Your task to perform on an android device: Search for sushi restaurants on Maps Image 0: 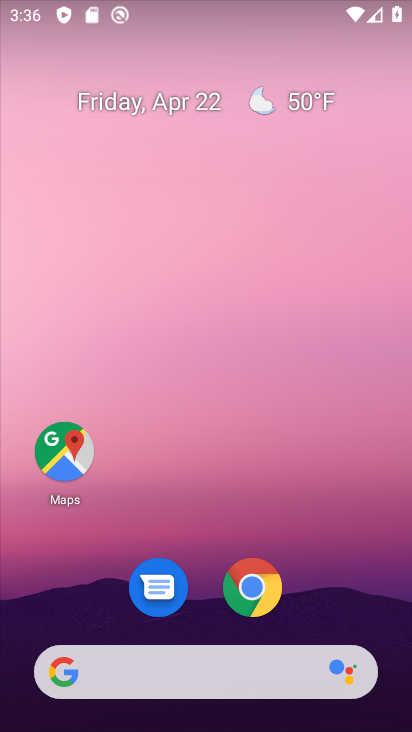
Step 0: click (62, 440)
Your task to perform on an android device: Search for sushi restaurants on Maps Image 1: 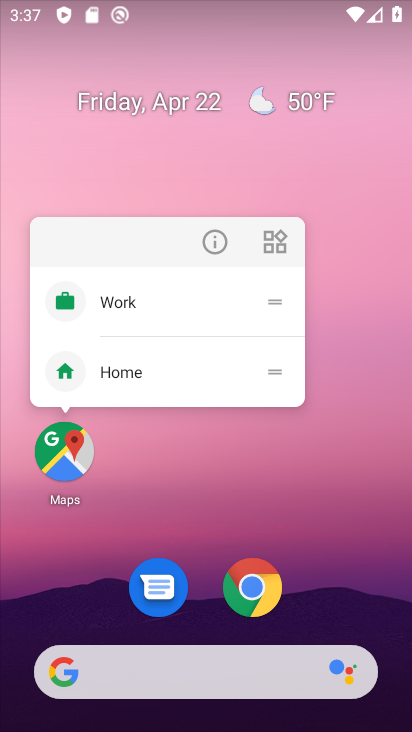
Step 1: click (66, 459)
Your task to perform on an android device: Search for sushi restaurants on Maps Image 2: 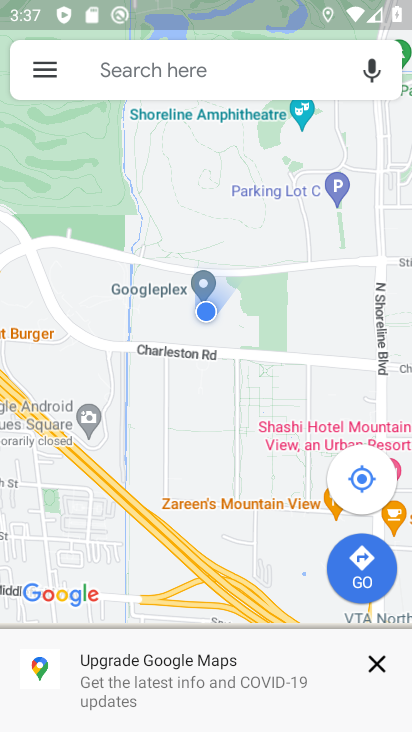
Step 2: click (145, 73)
Your task to perform on an android device: Search for sushi restaurants on Maps Image 3: 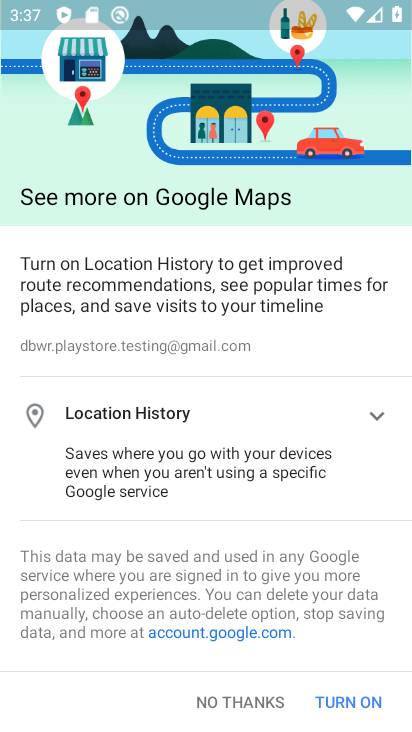
Step 3: click (210, 700)
Your task to perform on an android device: Search for sushi restaurants on Maps Image 4: 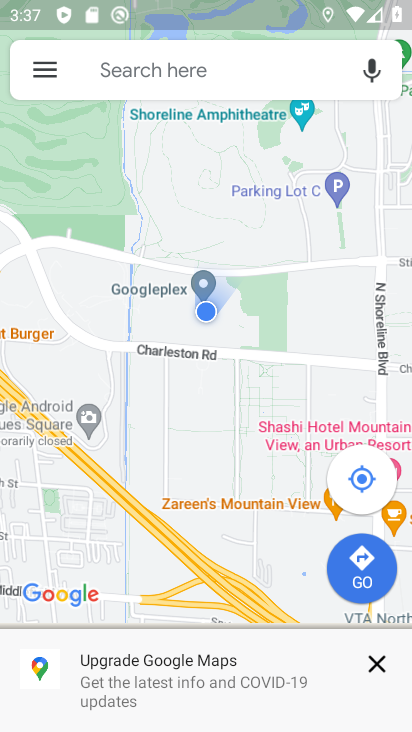
Step 4: click (128, 76)
Your task to perform on an android device: Search for sushi restaurants on Maps Image 5: 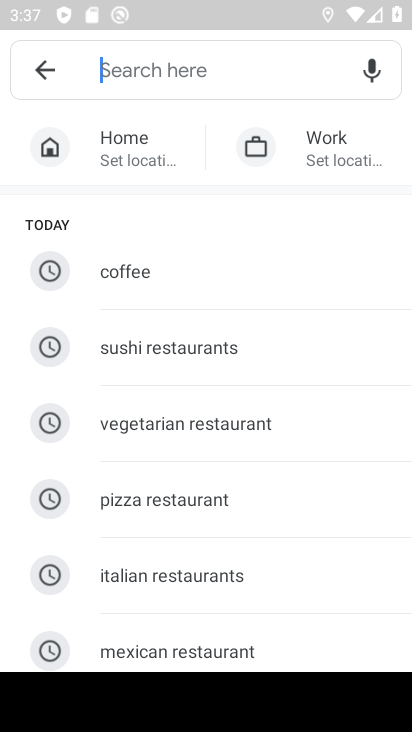
Step 5: type "sushi restaurant"
Your task to perform on an android device: Search for sushi restaurants on Maps Image 6: 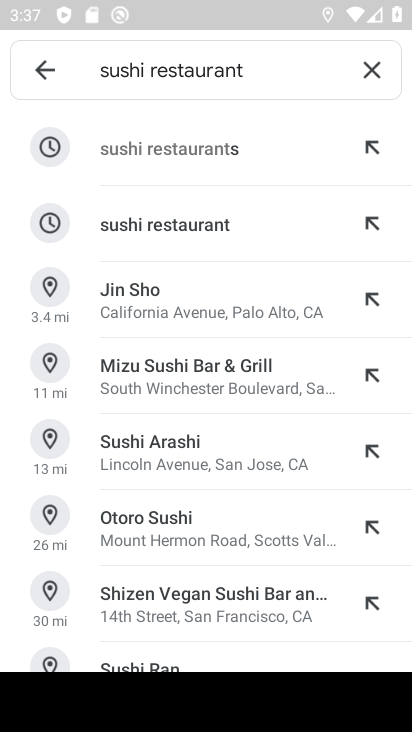
Step 6: click (198, 153)
Your task to perform on an android device: Search for sushi restaurants on Maps Image 7: 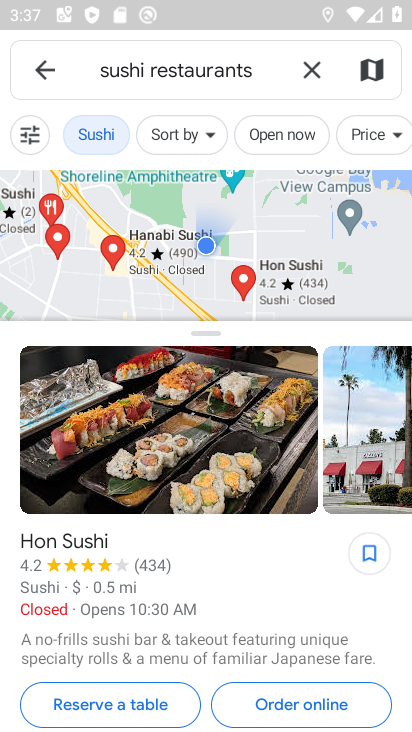
Step 7: task complete